Your task to perform on an android device: add a label to a message in the gmail app Image 0: 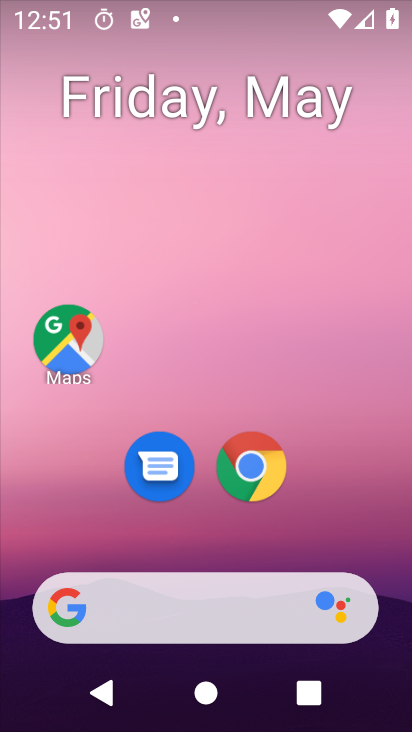
Step 0: drag from (397, 612) to (294, 55)
Your task to perform on an android device: add a label to a message in the gmail app Image 1: 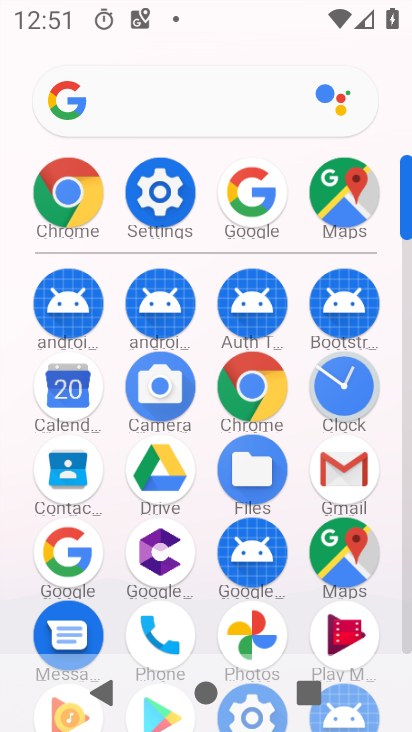
Step 1: click (332, 482)
Your task to perform on an android device: add a label to a message in the gmail app Image 2: 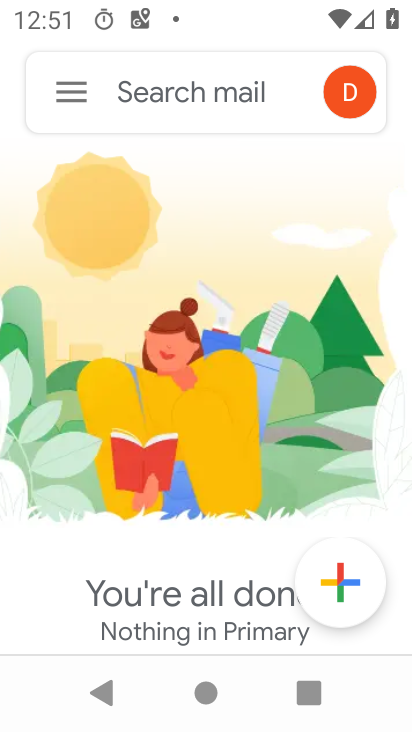
Step 2: task complete